Your task to perform on an android device: Search for "razer deathadder" on target.com, select the first entry, add it to the cart, then select checkout. Image 0: 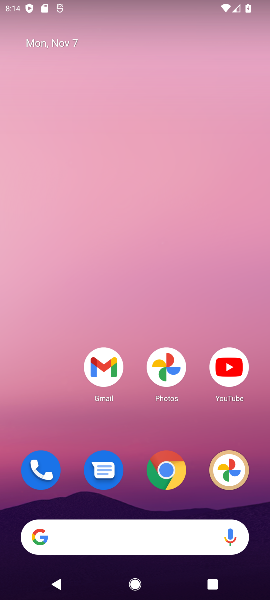
Step 0: click (176, 483)
Your task to perform on an android device: Search for "razer deathadder" on target.com, select the first entry, add it to the cart, then select checkout. Image 1: 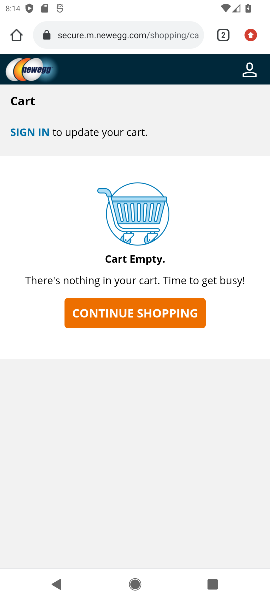
Step 1: click (83, 32)
Your task to perform on an android device: Search for "razer deathadder" on target.com, select the first entry, add it to the cart, then select checkout. Image 2: 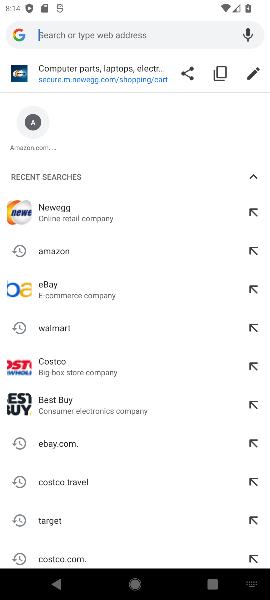
Step 2: click (46, 511)
Your task to perform on an android device: Search for "razer deathadder" on target.com, select the first entry, add it to the cart, then select checkout. Image 3: 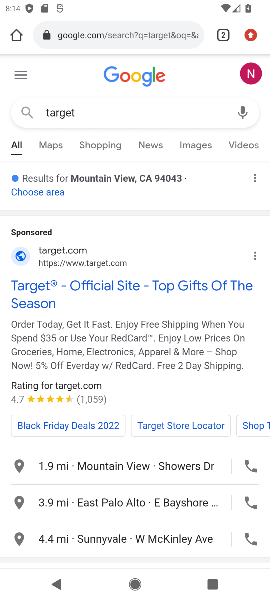
Step 3: click (52, 274)
Your task to perform on an android device: Search for "razer deathadder" on target.com, select the first entry, add it to the cart, then select checkout. Image 4: 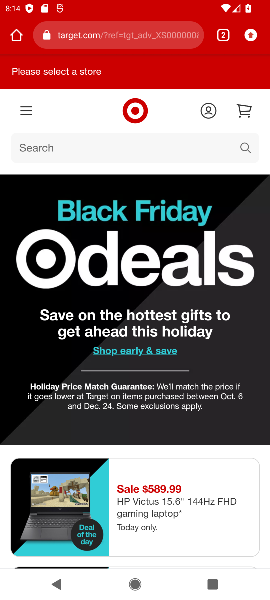
Step 4: click (124, 149)
Your task to perform on an android device: Search for "razer deathadder" on target.com, select the first entry, add it to the cart, then select checkout. Image 5: 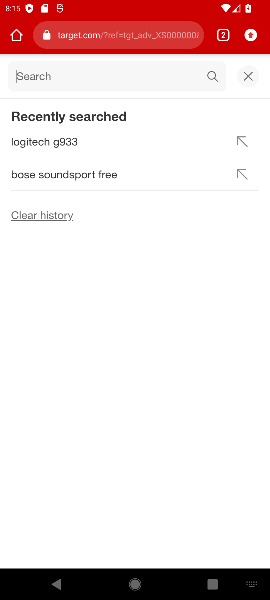
Step 5: type "razer deathadder"
Your task to perform on an android device: Search for "razer deathadder" on target.com, select the first entry, add it to the cart, then select checkout. Image 6: 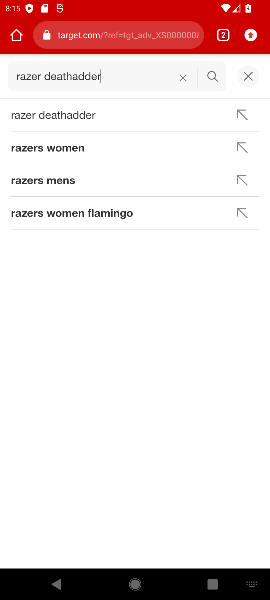
Step 6: click (217, 79)
Your task to perform on an android device: Search for "razer deathadder" on target.com, select the first entry, add it to the cart, then select checkout. Image 7: 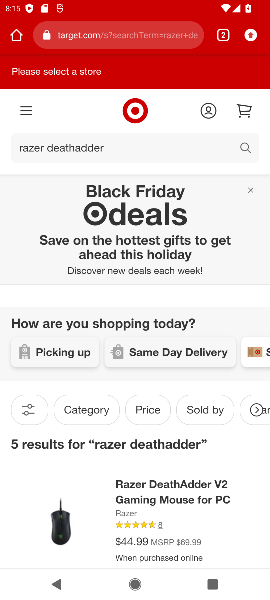
Step 7: click (159, 493)
Your task to perform on an android device: Search for "razer deathadder" on target.com, select the first entry, add it to the cart, then select checkout. Image 8: 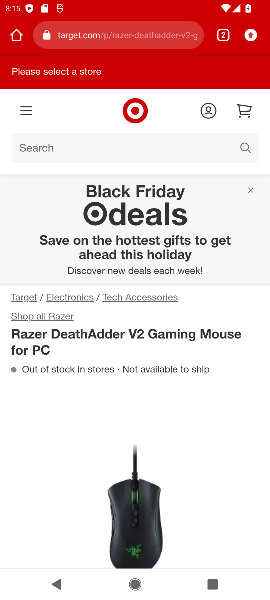
Step 8: drag from (159, 493) to (177, 67)
Your task to perform on an android device: Search for "razer deathadder" on target.com, select the first entry, add it to the cart, then select checkout. Image 9: 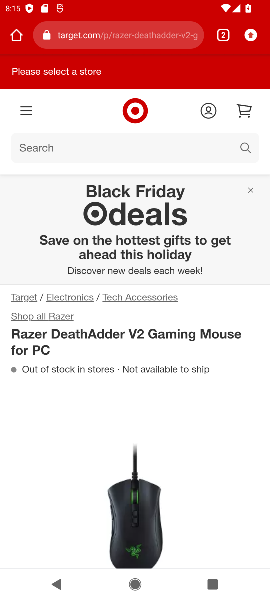
Step 9: drag from (71, 463) to (71, 185)
Your task to perform on an android device: Search for "razer deathadder" on target.com, select the first entry, add it to the cart, then select checkout. Image 10: 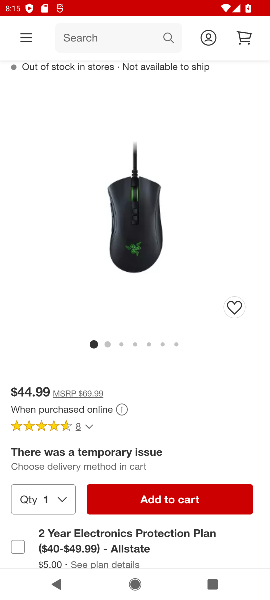
Step 10: click (151, 512)
Your task to perform on an android device: Search for "razer deathadder" on target.com, select the first entry, add it to the cart, then select checkout. Image 11: 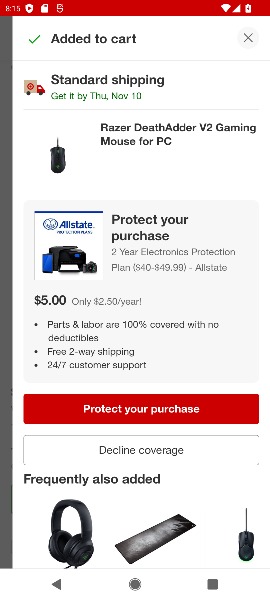
Step 11: click (258, 33)
Your task to perform on an android device: Search for "razer deathadder" on target.com, select the first entry, add it to the cart, then select checkout. Image 12: 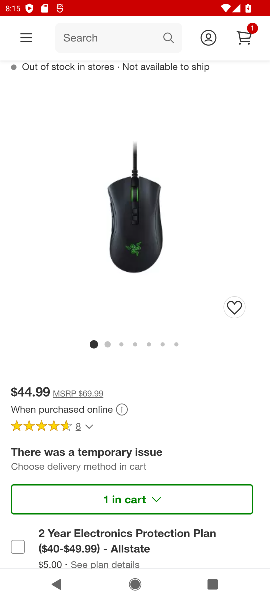
Step 12: click (242, 36)
Your task to perform on an android device: Search for "razer deathadder" on target.com, select the first entry, add it to the cart, then select checkout. Image 13: 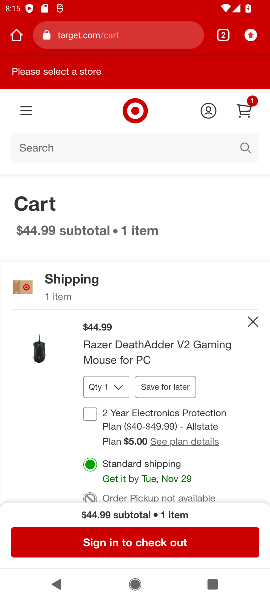
Step 13: click (77, 549)
Your task to perform on an android device: Search for "razer deathadder" on target.com, select the first entry, add it to the cart, then select checkout. Image 14: 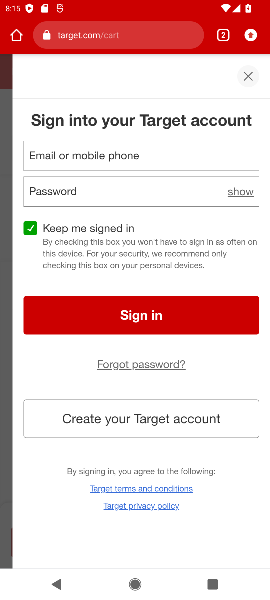
Step 14: task complete